Your task to perform on an android device: Open the calendar and show me this week's events? Image 0: 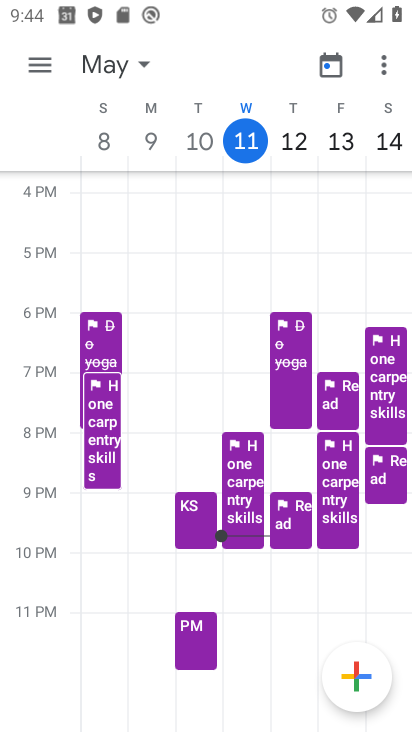
Step 0: press home button
Your task to perform on an android device: Open the calendar and show me this week's events? Image 1: 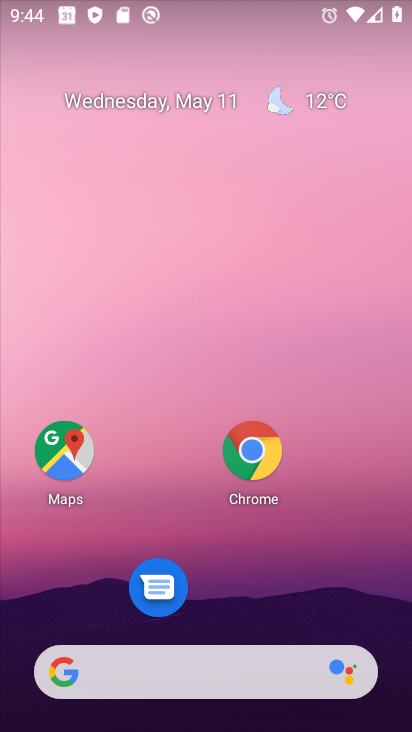
Step 1: drag from (369, 513) to (393, 27)
Your task to perform on an android device: Open the calendar and show me this week's events? Image 2: 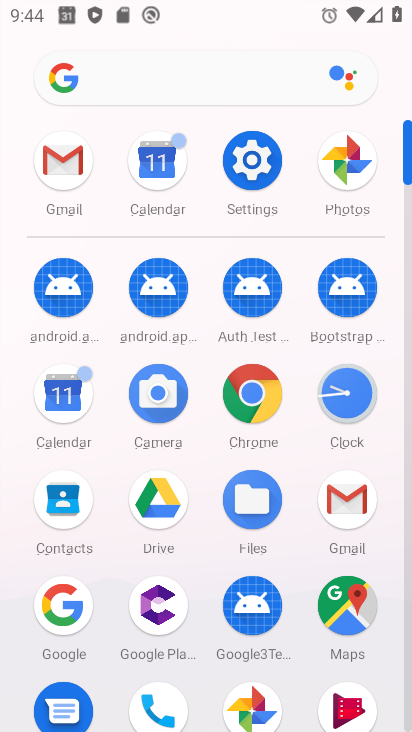
Step 2: click (156, 167)
Your task to perform on an android device: Open the calendar and show me this week's events? Image 3: 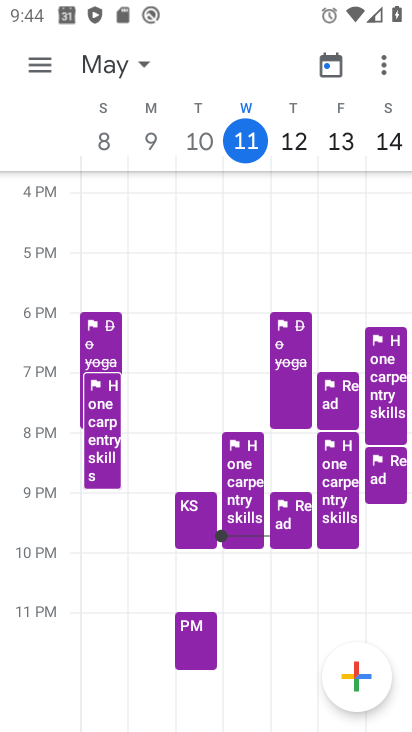
Step 3: task complete